Your task to perform on an android device: Open wifi settings Image 0: 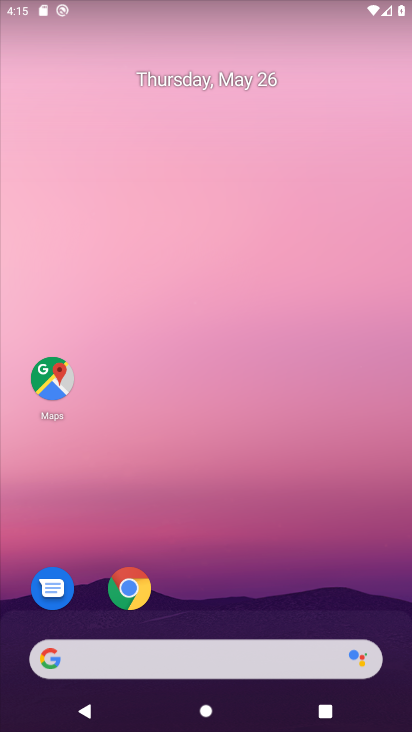
Step 0: drag from (209, 638) to (342, 97)
Your task to perform on an android device: Open wifi settings Image 1: 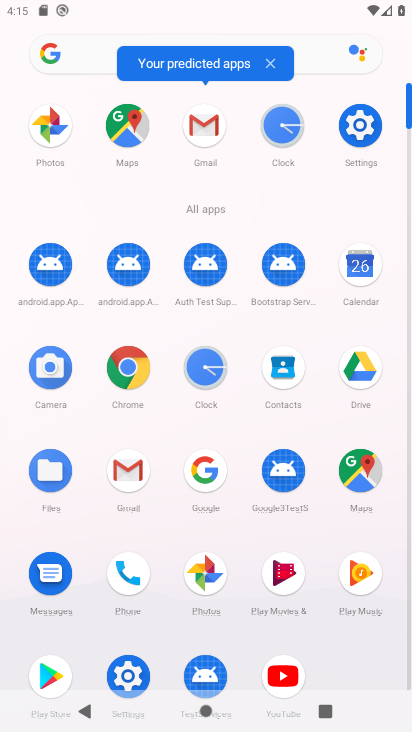
Step 1: drag from (140, 628) to (304, 298)
Your task to perform on an android device: Open wifi settings Image 2: 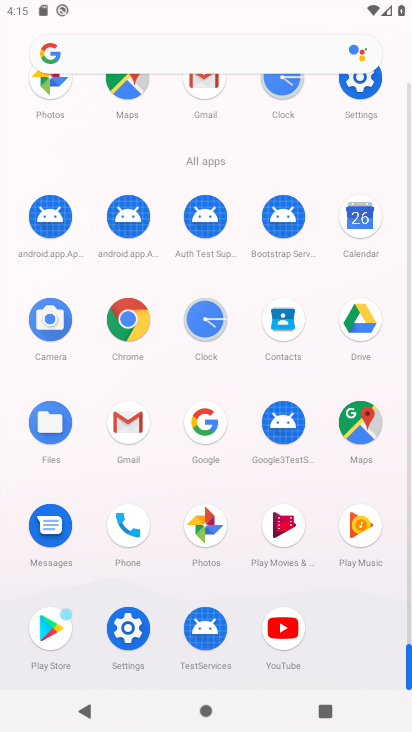
Step 2: click (142, 638)
Your task to perform on an android device: Open wifi settings Image 3: 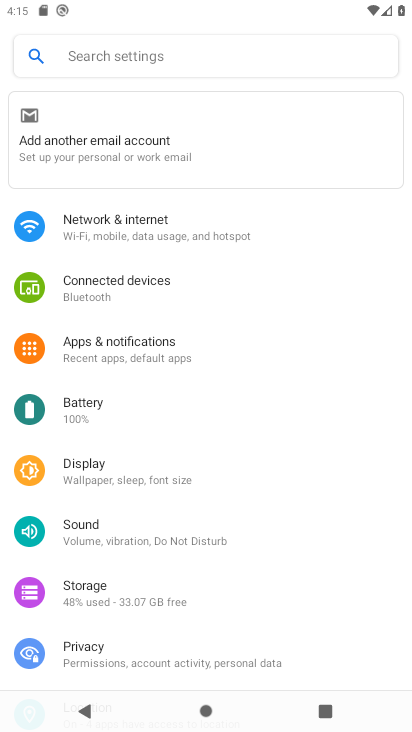
Step 3: click (198, 237)
Your task to perform on an android device: Open wifi settings Image 4: 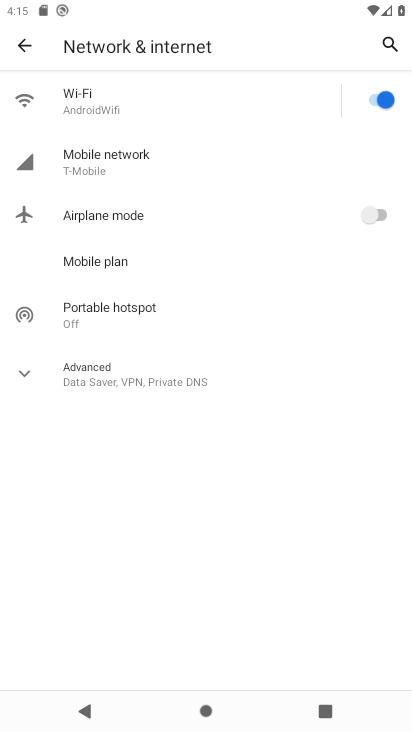
Step 4: click (191, 117)
Your task to perform on an android device: Open wifi settings Image 5: 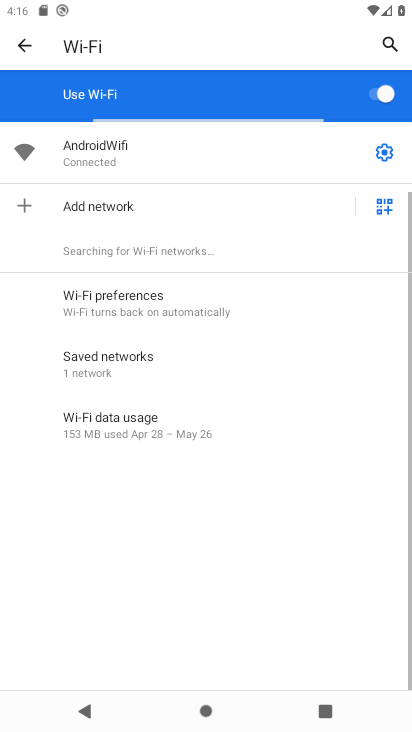
Step 5: task complete